Your task to perform on an android device: toggle priority inbox in the gmail app Image 0: 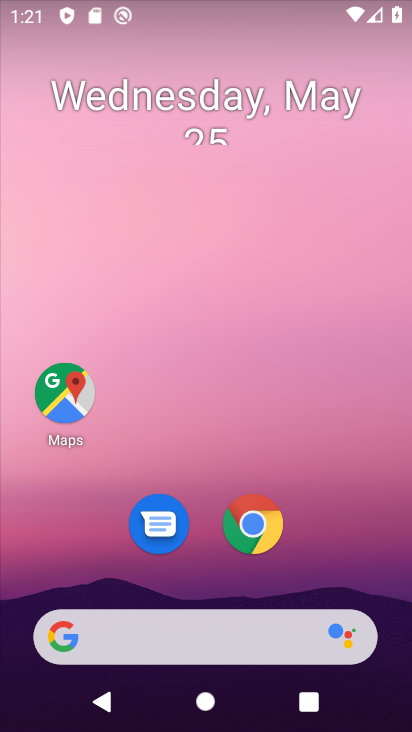
Step 0: drag from (318, 499) to (297, 44)
Your task to perform on an android device: toggle priority inbox in the gmail app Image 1: 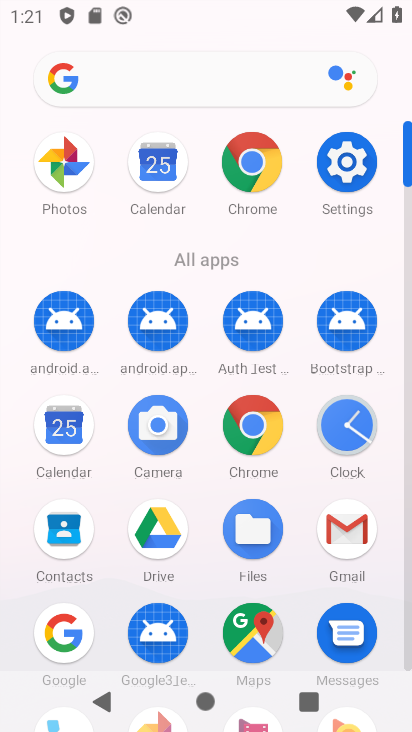
Step 1: click (350, 520)
Your task to perform on an android device: toggle priority inbox in the gmail app Image 2: 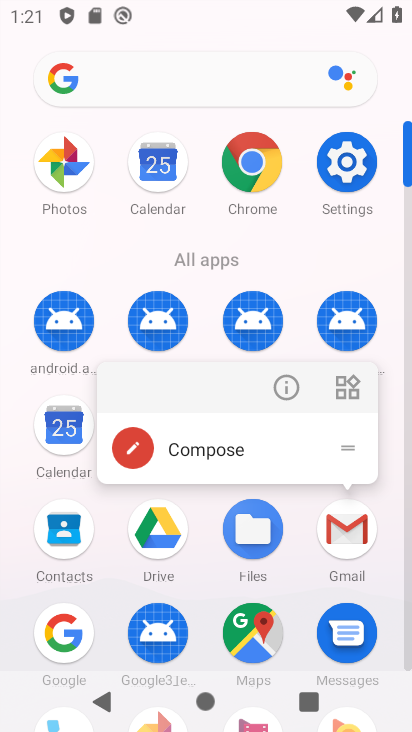
Step 2: click (350, 520)
Your task to perform on an android device: toggle priority inbox in the gmail app Image 3: 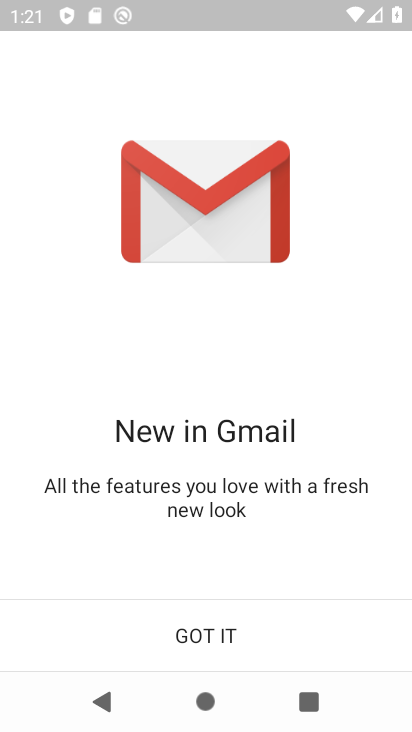
Step 3: click (250, 630)
Your task to perform on an android device: toggle priority inbox in the gmail app Image 4: 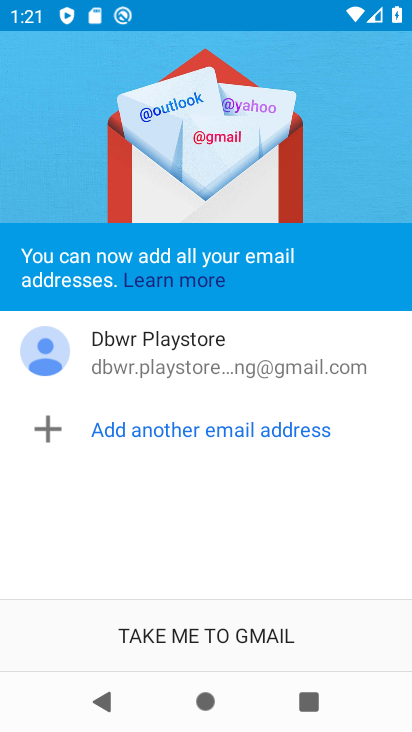
Step 4: click (250, 630)
Your task to perform on an android device: toggle priority inbox in the gmail app Image 5: 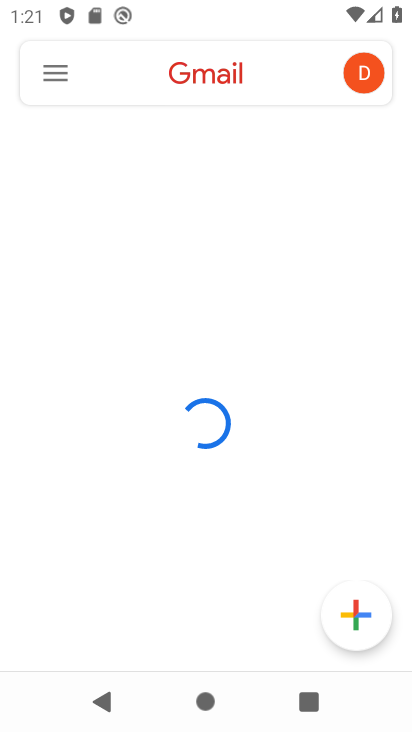
Step 5: click (51, 66)
Your task to perform on an android device: toggle priority inbox in the gmail app Image 6: 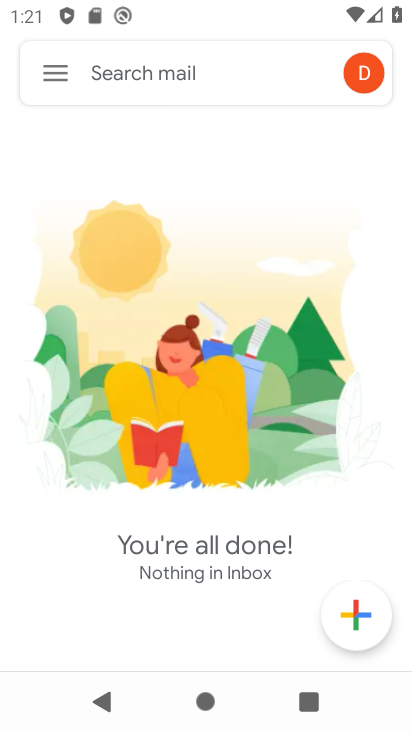
Step 6: click (53, 69)
Your task to perform on an android device: toggle priority inbox in the gmail app Image 7: 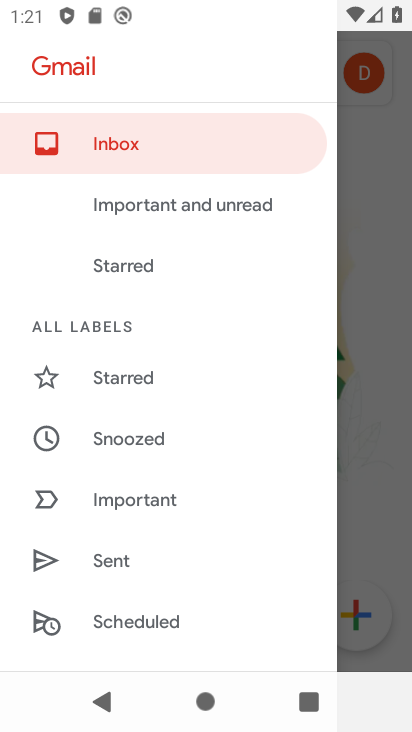
Step 7: drag from (163, 595) to (206, 13)
Your task to perform on an android device: toggle priority inbox in the gmail app Image 8: 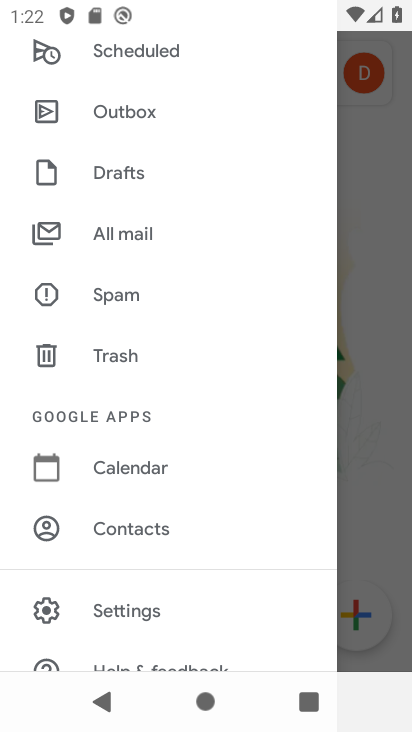
Step 8: click (131, 612)
Your task to perform on an android device: toggle priority inbox in the gmail app Image 9: 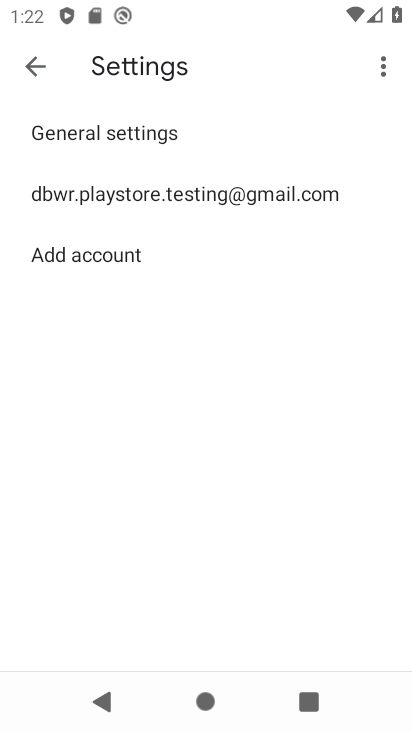
Step 9: click (187, 187)
Your task to perform on an android device: toggle priority inbox in the gmail app Image 10: 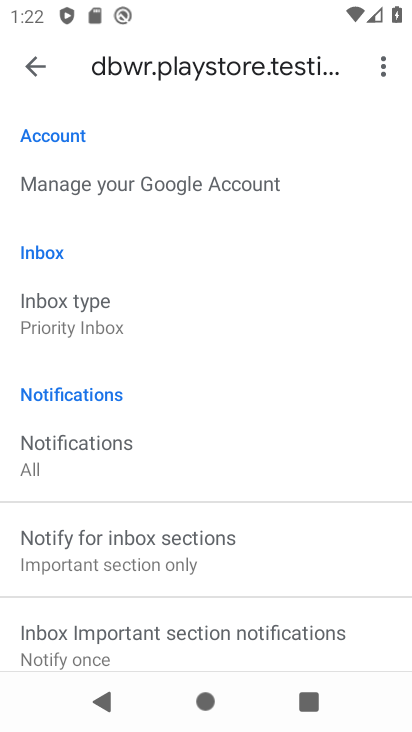
Step 10: click (83, 305)
Your task to perform on an android device: toggle priority inbox in the gmail app Image 11: 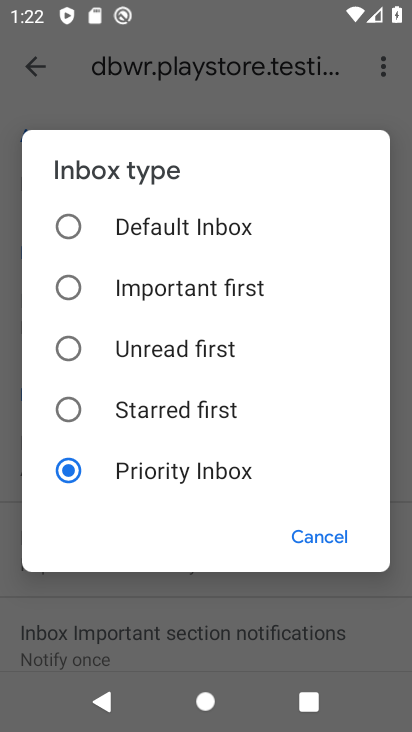
Step 11: click (59, 223)
Your task to perform on an android device: toggle priority inbox in the gmail app Image 12: 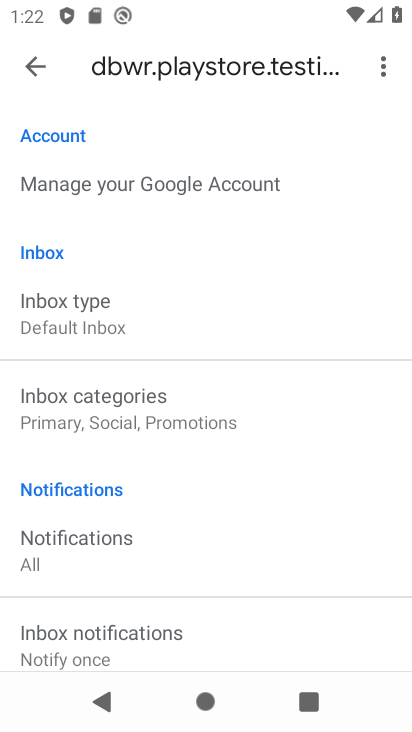
Step 12: task complete